Your task to perform on an android device: change timer sound Image 0: 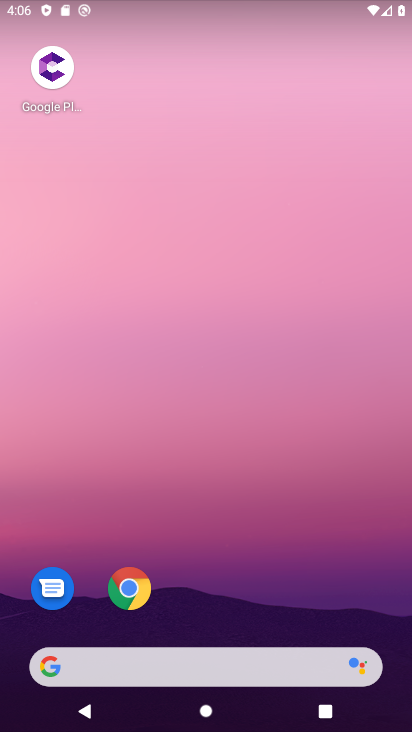
Step 0: drag from (288, 609) to (292, 46)
Your task to perform on an android device: change timer sound Image 1: 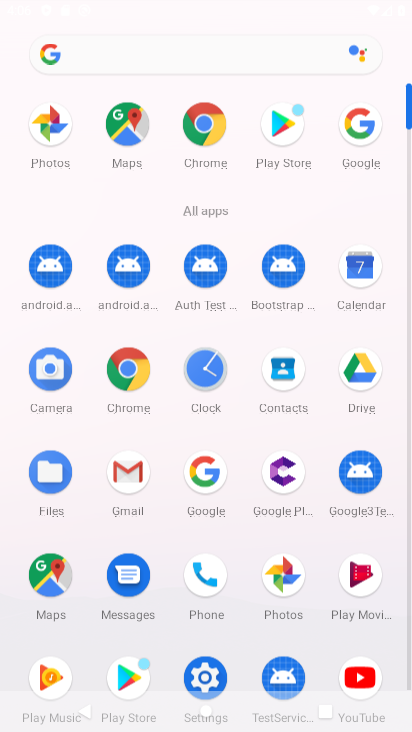
Step 1: drag from (277, 585) to (272, 173)
Your task to perform on an android device: change timer sound Image 2: 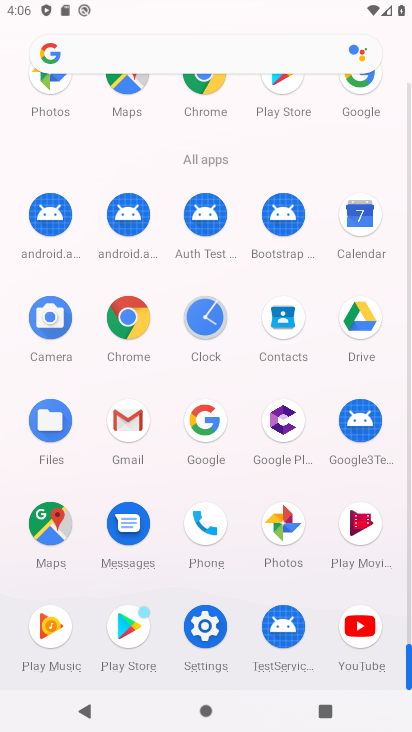
Step 2: click (212, 325)
Your task to perform on an android device: change timer sound Image 3: 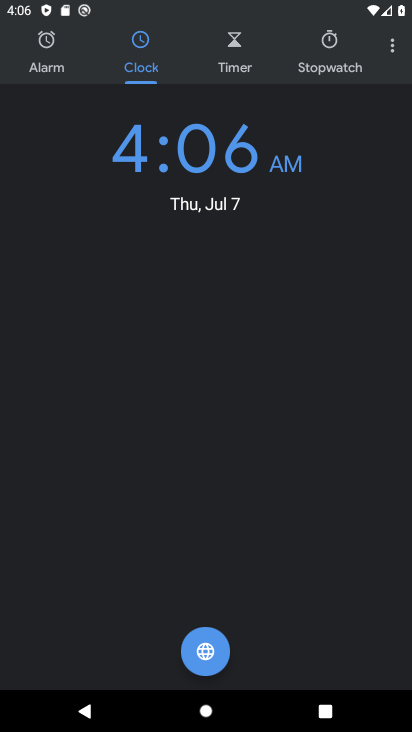
Step 3: click (390, 52)
Your task to perform on an android device: change timer sound Image 4: 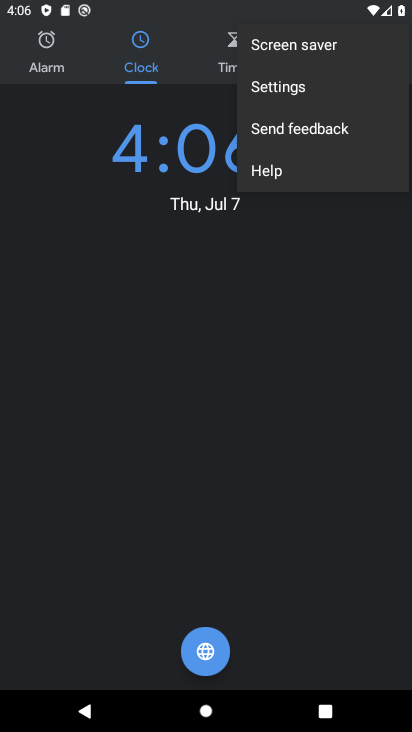
Step 4: click (308, 101)
Your task to perform on an android device: change timer sound Image 5: 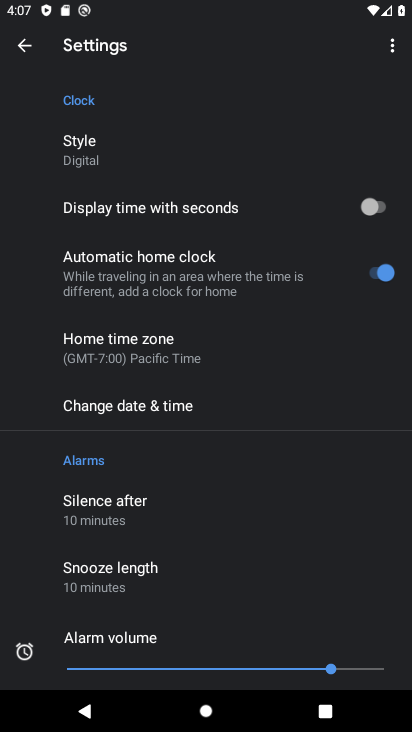
Step 5: drag from (232, 601) to (258, 57)
Your task to perform on an android device: change timer sound Image 6: 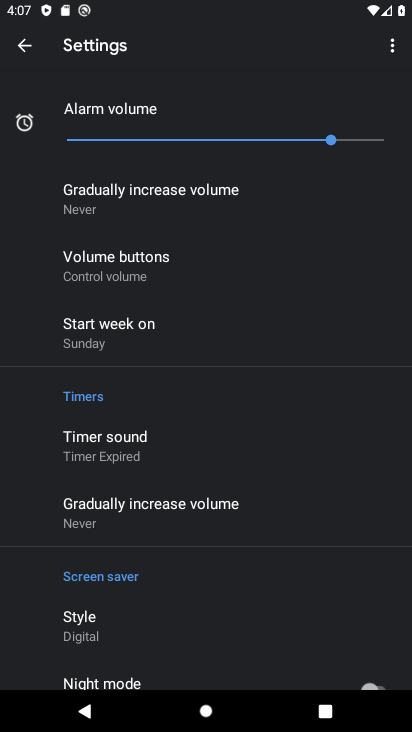
Step 6: click (193, 444)
Your task to perform on an android device: change timer sound Image 7: 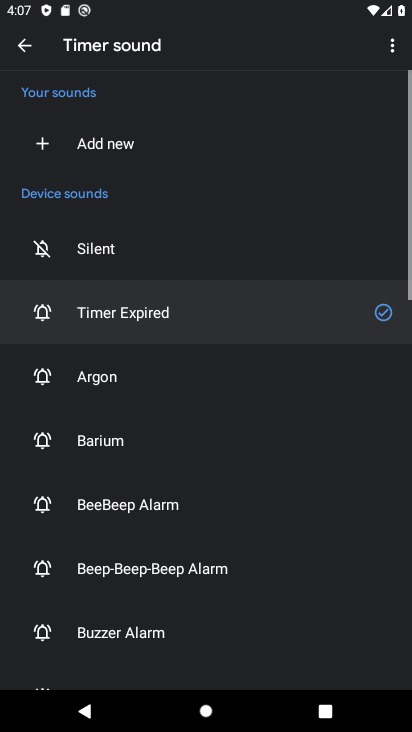
Step 7: click (153, 383)
Your task to perform on an android device: change timer sound Image 8: 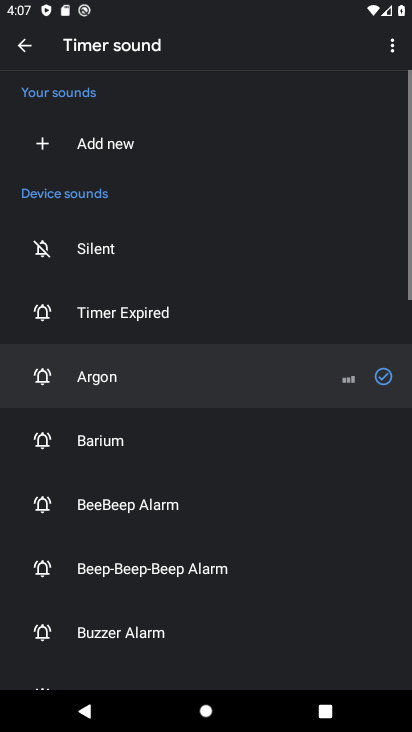
Step 8: task complete